Your task to perform on an android device: change your default location settings in chrome Image 0: 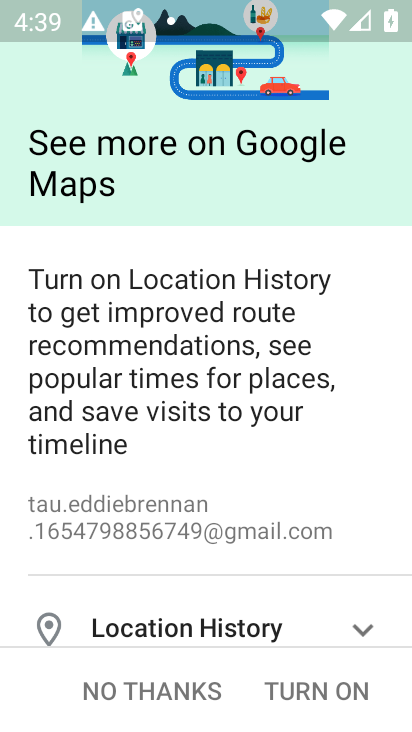
Step 0: drag from (274, 219) to (285, 111)
Your task to perform on an android device: change your default location settings in chrome Image 1: 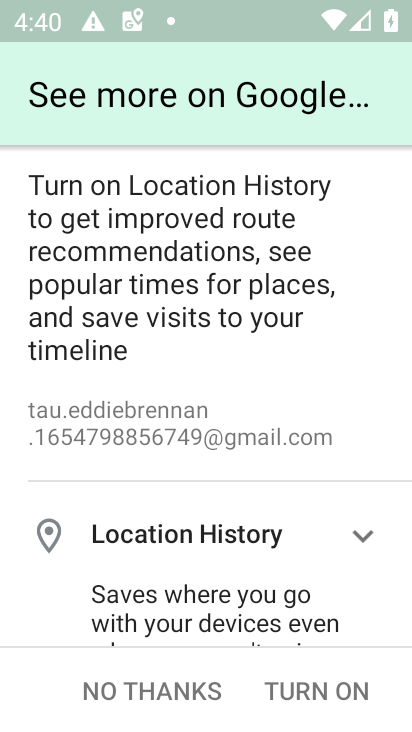
Step 1: press home button
Your task to perform on an android device: change your default location settings in chrome Image 2: 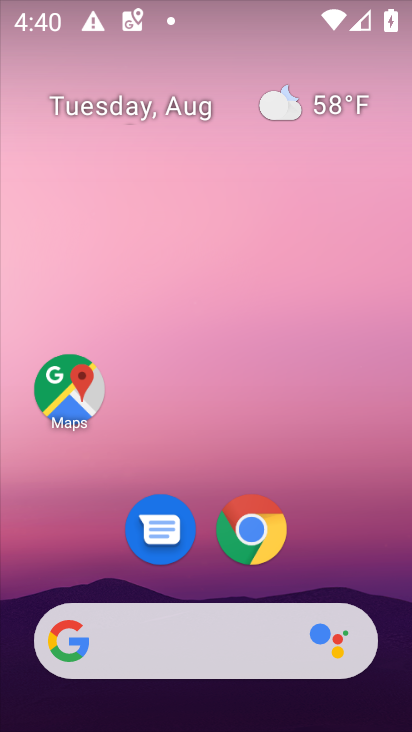
Step 2: click (239, 527)
Your task to perform on an android device: change your default location settings in chrome Image 3: 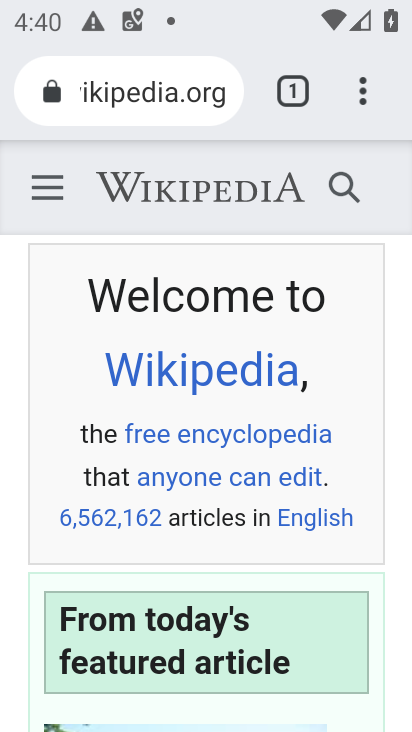
Step 3: click (374, 92)
Your task to perform on an android device: change your default location settings in chrome Image 4: 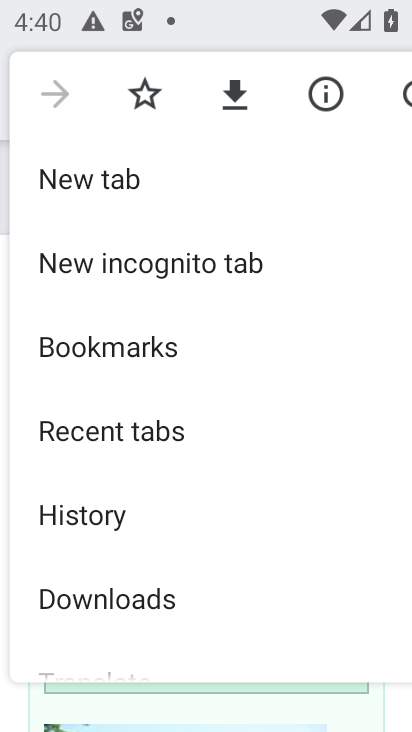
Step 4: drag from (173, 564) to (239, 242)
Your task to perform on an android device: change your default location settings in chrome Image 5: 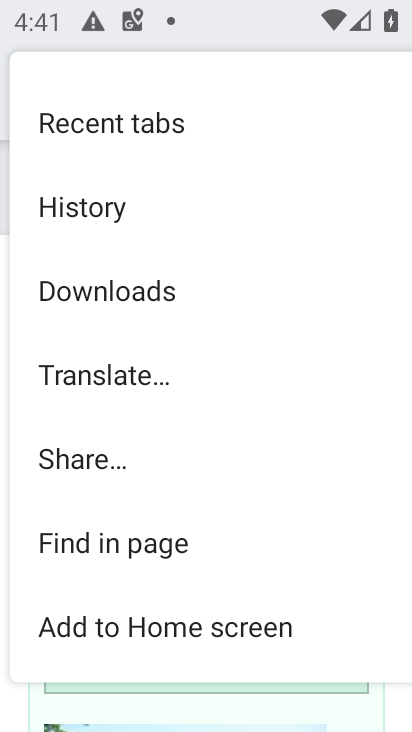
Step 5: drag from (176, 508) to (196, 181)
Your task to perform on an android device: change your default location settings in chrome Image 6: 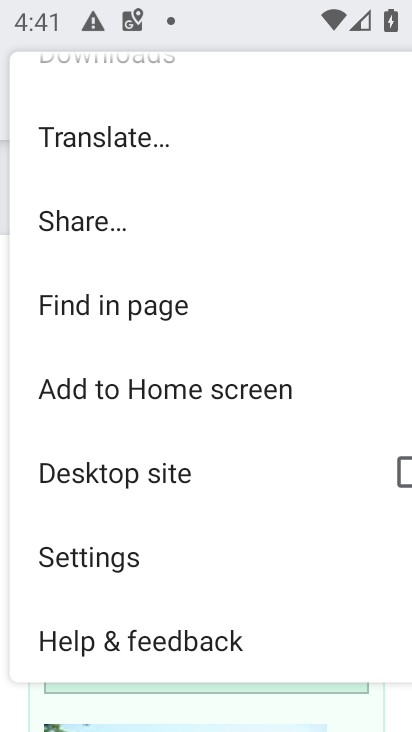
Step 6: click (133, 548)
Your task to perform on an android device: change your default location settings in chrome Image 7: 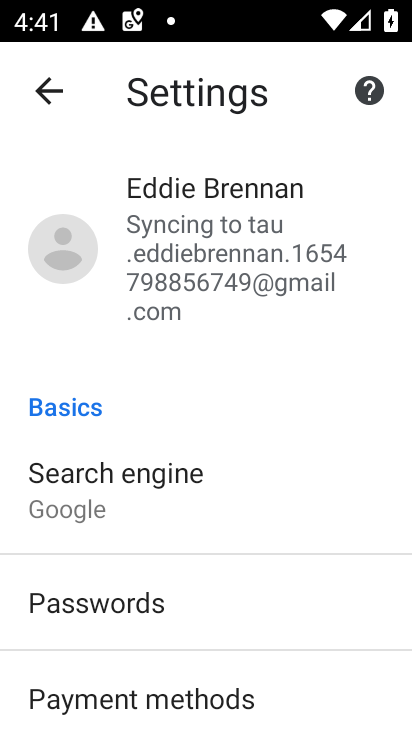
Step 7: drag from (245, 655) to (258, 265)
Your task to perform on an android device: change your default location settings in chrome Image 8: 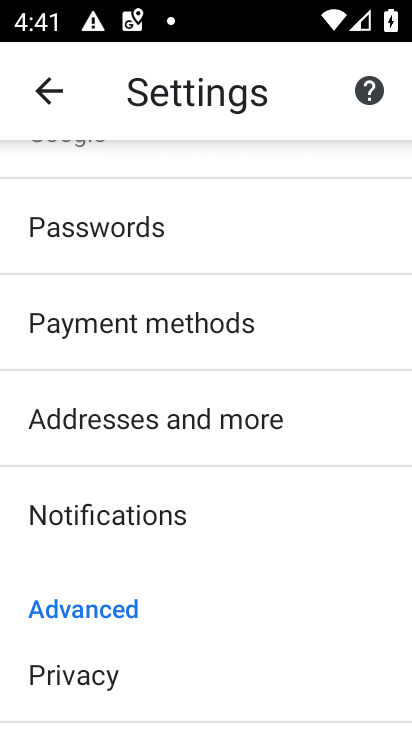
Step 8: drag from (203, 559) to (211, 266)
Your task to perform on an android device: change your default location settings in chrome Image 9: 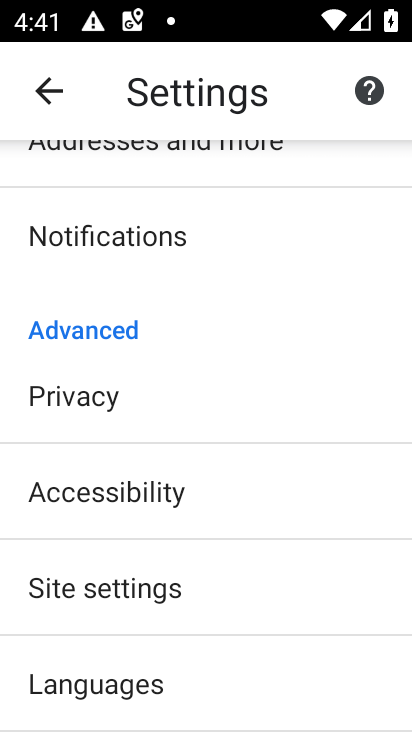
Step 9: drag from (210, 576) to (228, 292)
Your task to perform on an android device: change your default location settings in chrome Image 10: 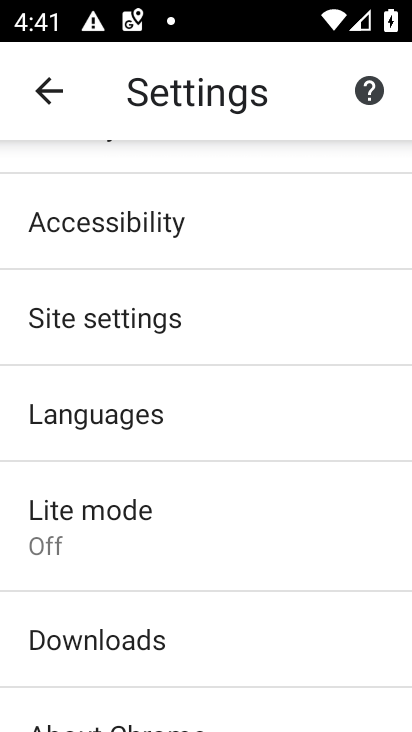
Step 10: drag from (186, 568) to (208, 308)
Your task to perform on an android device: change your default location settings in chrome Image 11: 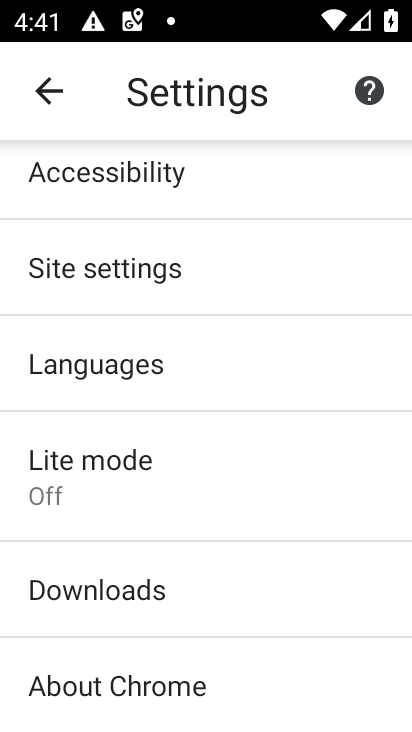
Step 11: drag from (186, 561) to (199, 252)
Your task to perform on an android device: change your default location settings in chrome Image 12: 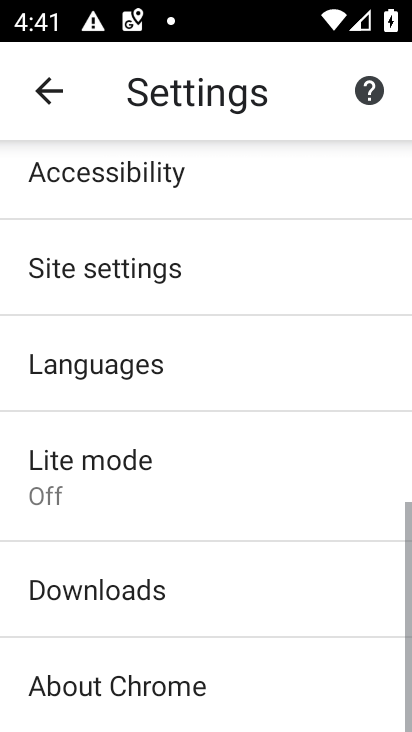
Step 12: drag from (191, 594) to (192, 248)
Your task to perform on an android device: change your default location settings in chrome Image 13: 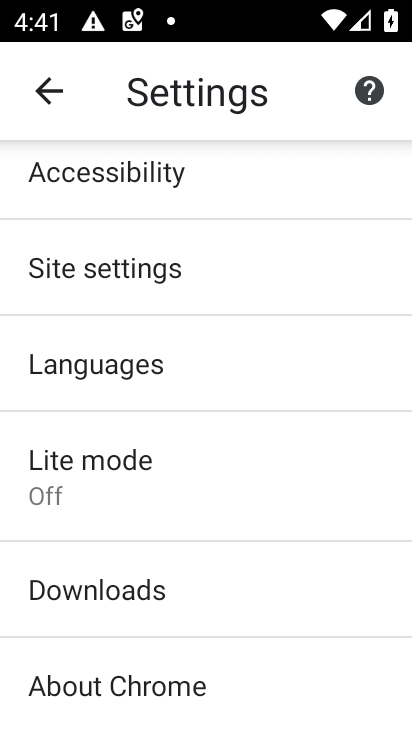
Step 13: click (161, 264)
Your task to perform on an android device: change your default location settings in chrome Image 14: 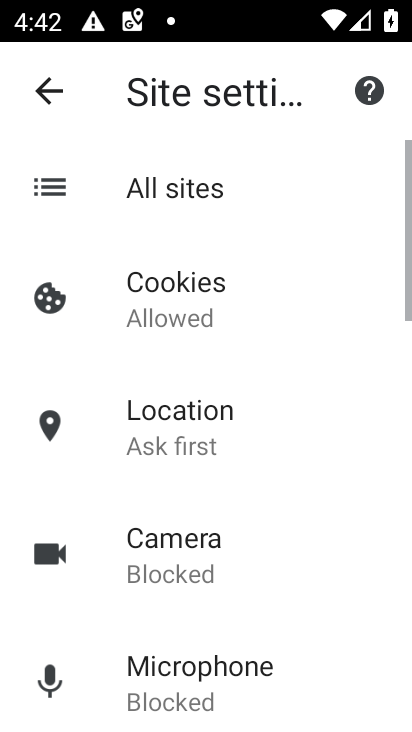
Step 14: click (182, 446)
Your task to perform on an android device: change your default location settings in chrome Image 15: 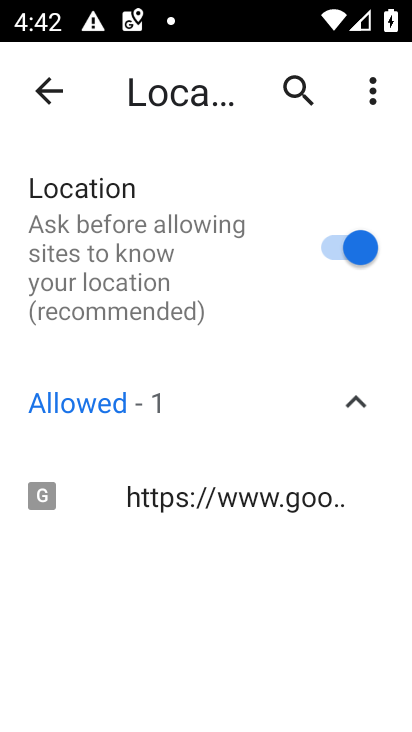
Step 15: click (338, 246)
Your task to perform on an android device: change your default location settings in chrome Image 16: 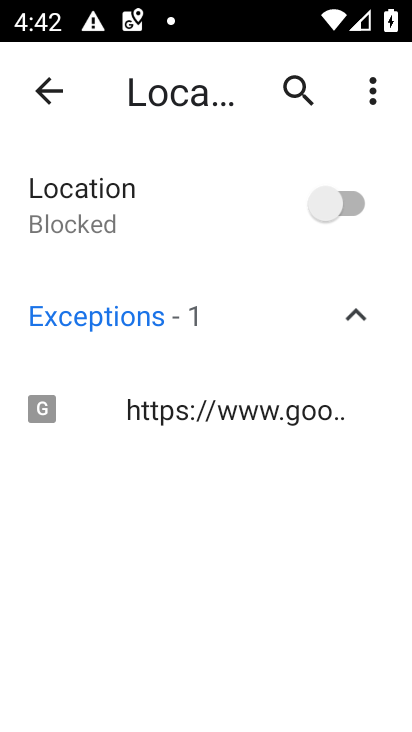
Step 16: task complete